Your task to perform on an android device: change timer sound Image 0: 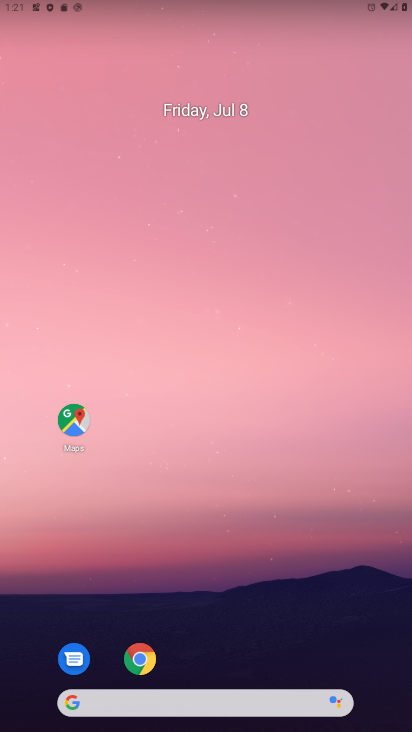
Step 0: drag from (282, 579) to (185, 102)
Your task to perform on an android device: change timer sound Image 1: 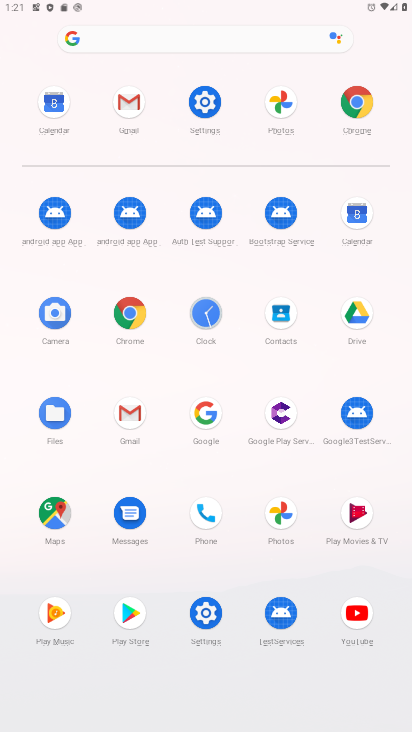
Step 1: click (202, 311)
Your task to perform on an android device: change timer sound Image 2: 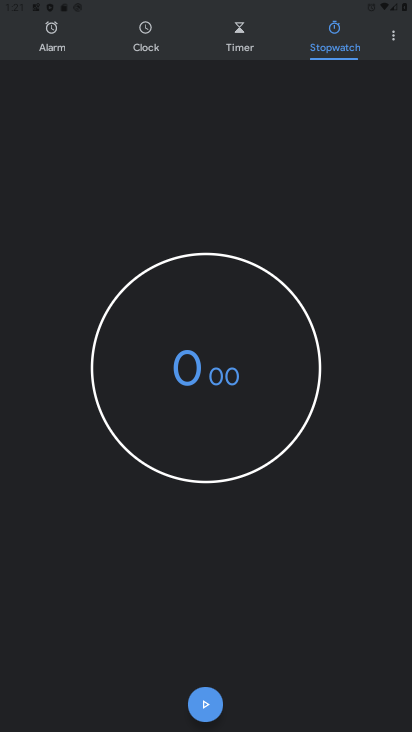
Step 2: click (394, 38)
Your task to perform on an android device: change timer sound Image 3: 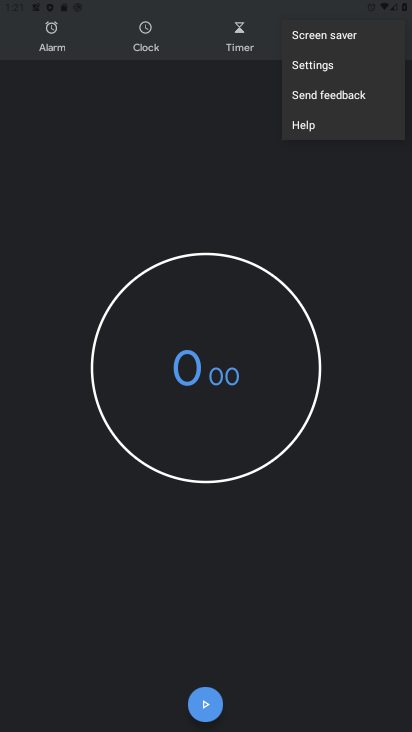
Step 3: click (322, 59)
Your task to perform on an android device: change timer sound Image 4: 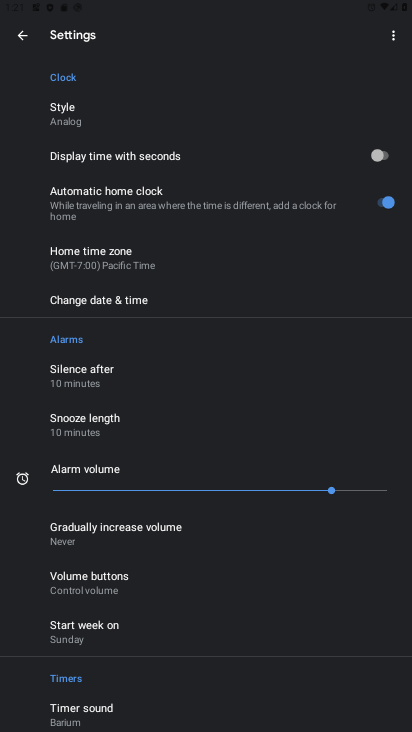
Step 4: click (90, 712)
Your task to perform on an android device: change timer sound Image 5: 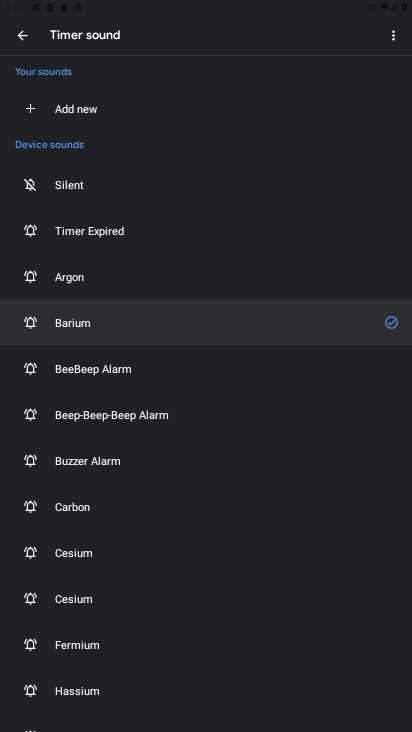
Step 5: click (86, 371)
Your task to perform on an android device: change timer sound Image 6: 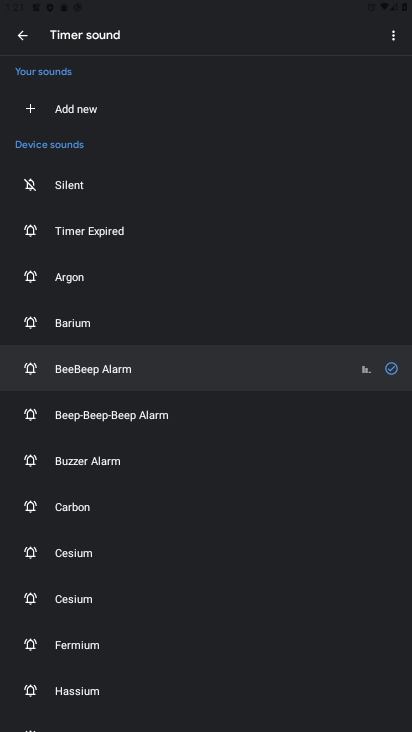
Step 6: task complete